Your task to perform on an android device: Go to wifi settings Image 0: 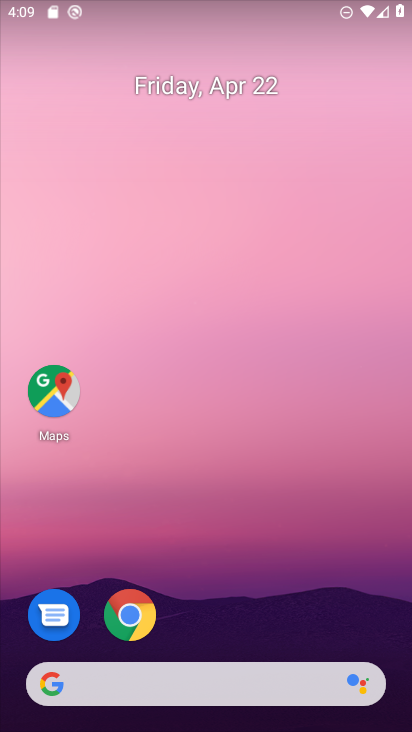
Step 0: press home button
Your task to perform on an android device: Go to wifi settings Image 1: 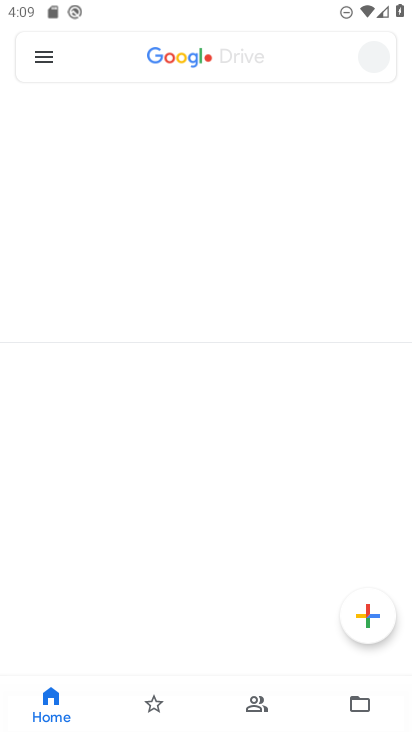
Step 1: drag from (258, 347) to (278, 102)
Your task to perform on an android device: Go to wifi settings Image 2: 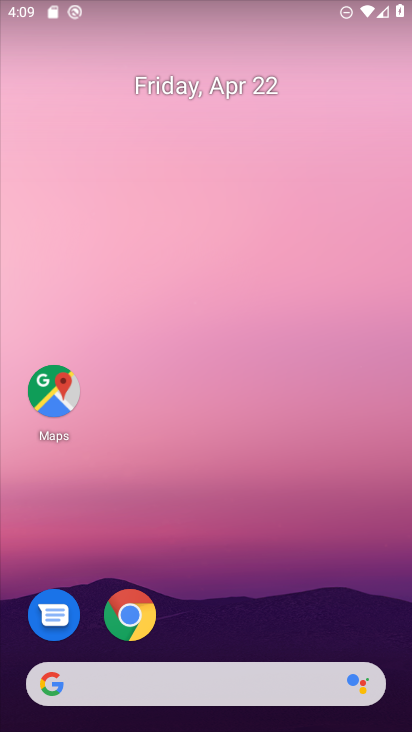
Step 2: drag from (269, 586) to (283, 106)
Your task to perform on an android device: Go to wifi settings Image 3: 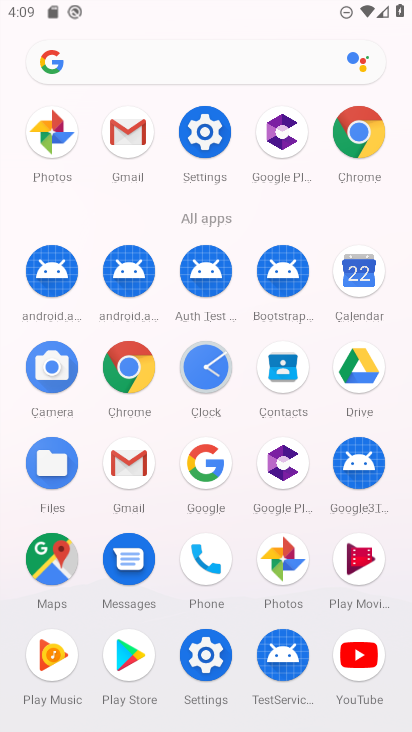
Step 3: click (207, 662)
Your task to perform on an android device: Go to wifi settings Image 4: 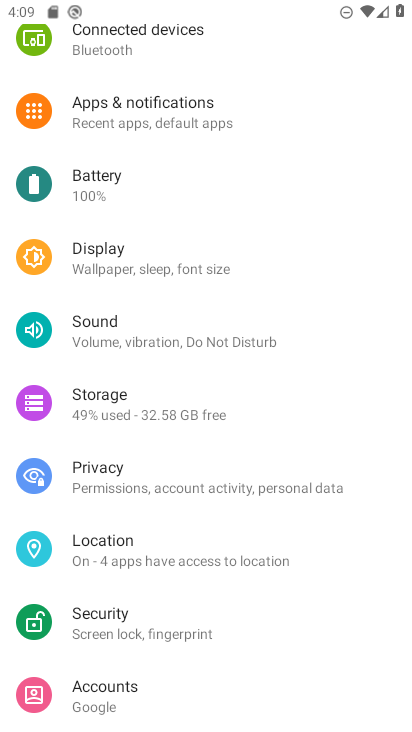
Step 4: drag from (189, 137) to (241, 553)
Your task to perform on an android device: Go to wifi settings Image 5: 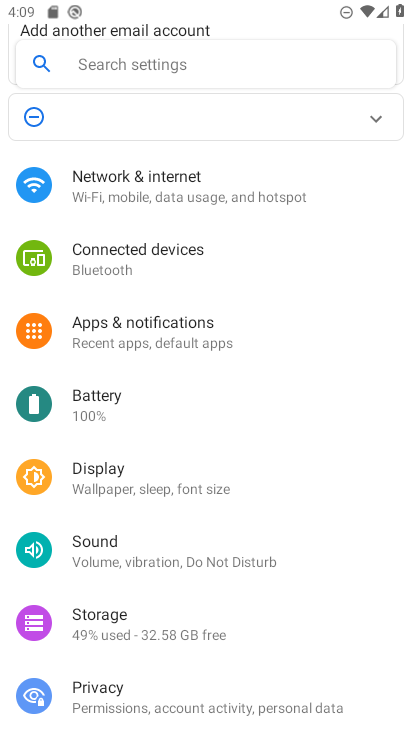
Step 5: click (170, 192)
Your task to perform on an android device: Go to wifi settings Image 6: 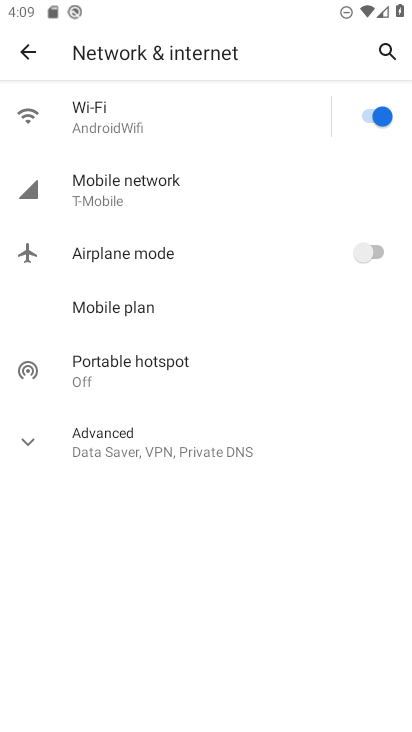
Step 6: click (261, 109)
Your task to perform on an android device: Go to wifi settings Image 7: 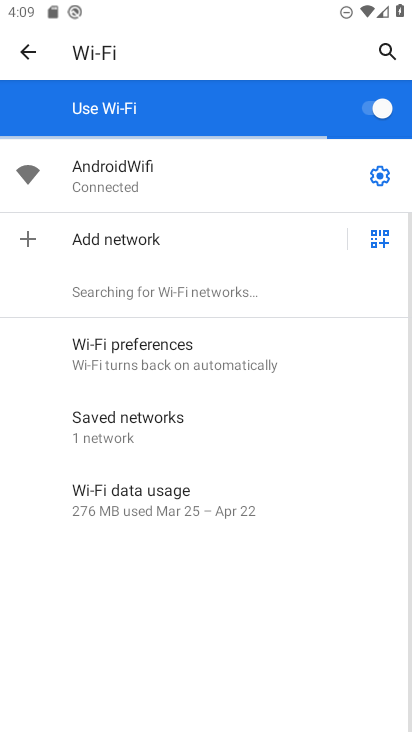
Step 7: click (389, 176)
Your task to perform on an android device: Go to wifi settings Image 8: 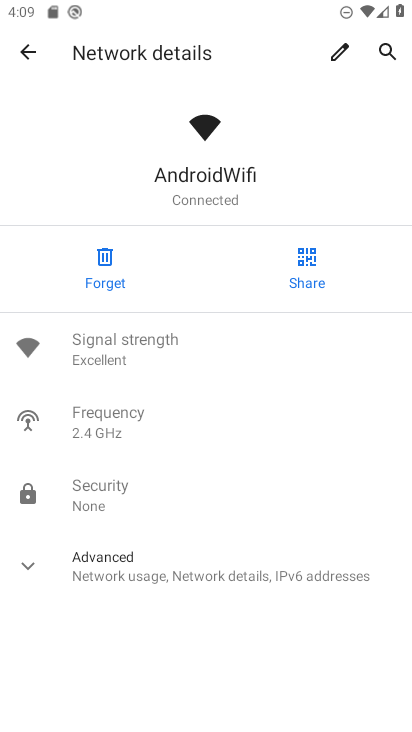
Step 8: task complete